Your task to perform on an android device: turn smart compose on in the gmail app Image 0: 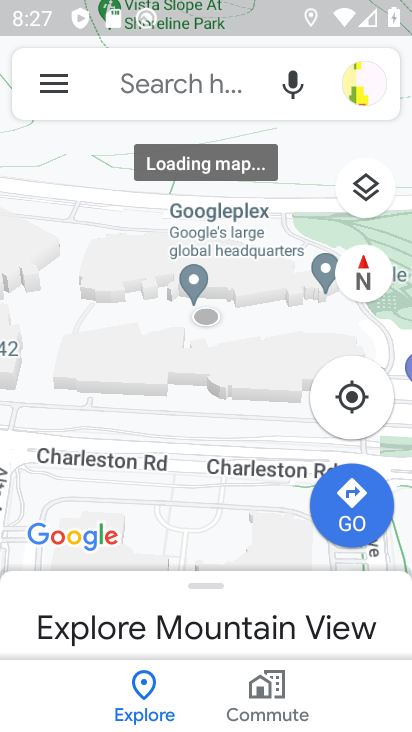
Step 0: press home button
Your task to perform on an android device: turn smart compose on in the gmail app Image 1: 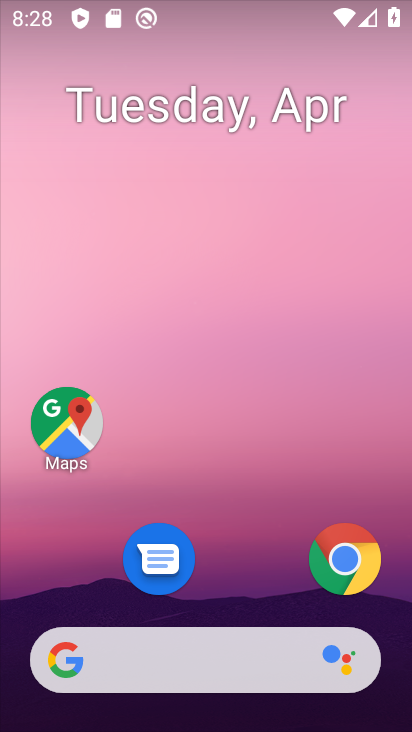
Step 1: drag from (271, 708) to (284, 320)
Your task to perform on an android device: turn smart compose on in the gmail app Image 2: 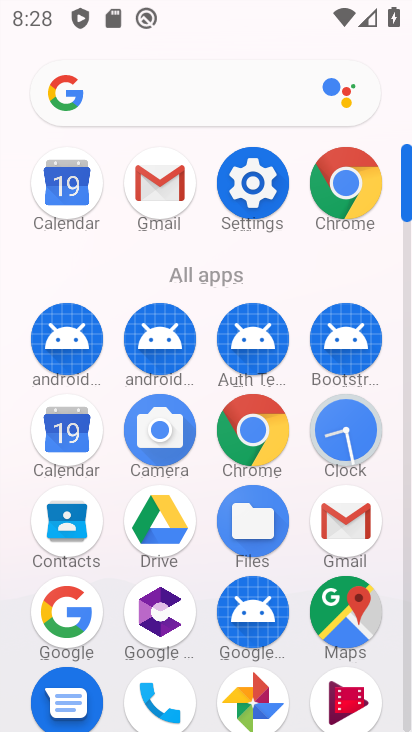
Step 2: click (356, 532)
Your task to perform on an android device: turn smart compose on in the gmail app Image 3: 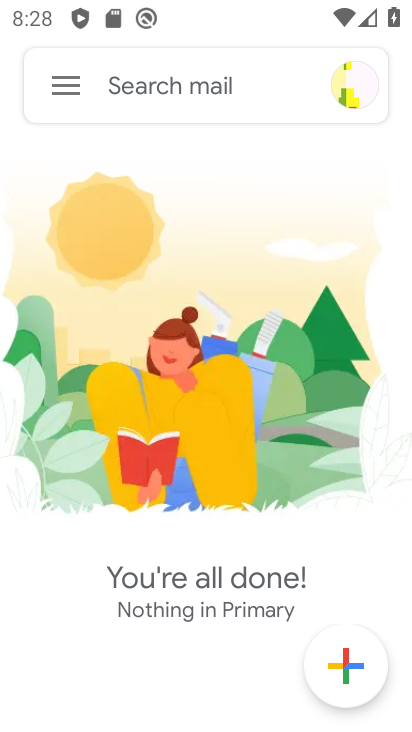
Step 3: click (60, 91)
Your task to perform on an android device: turn smart compose on in the gmail app Image 4: 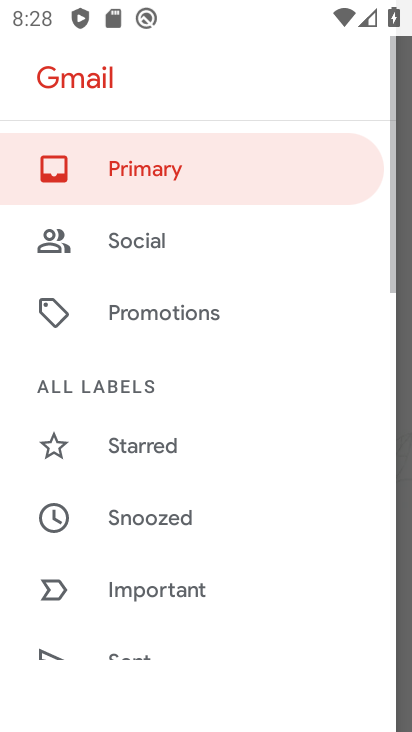
Step 4: drag from (170, 575) to (230, 131)
Your task to perform on an android device: turn smart compose on in the gmail app Image 5: 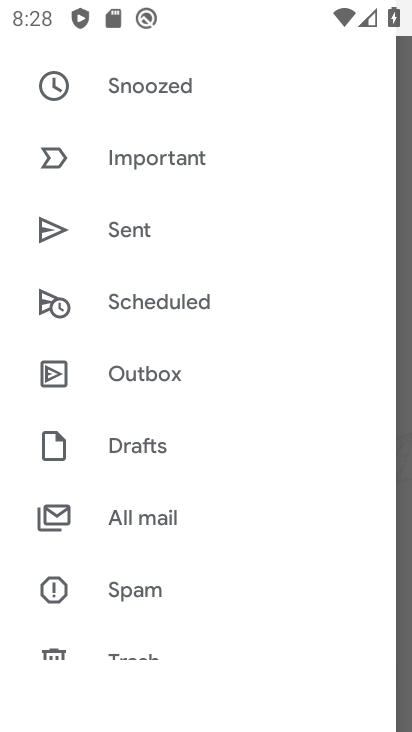
Step 5: drag from (181, 512) to (222, 119)
Your task to perform on an android device: turn smart compose on in the gmail app Image 6: 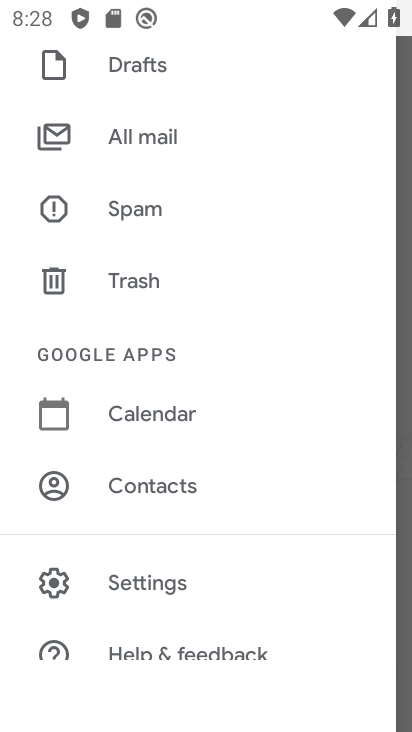
Step 6: click (148, 590)
Your task to perform on an android device: turn smart compose on in the gmail app Image 7: 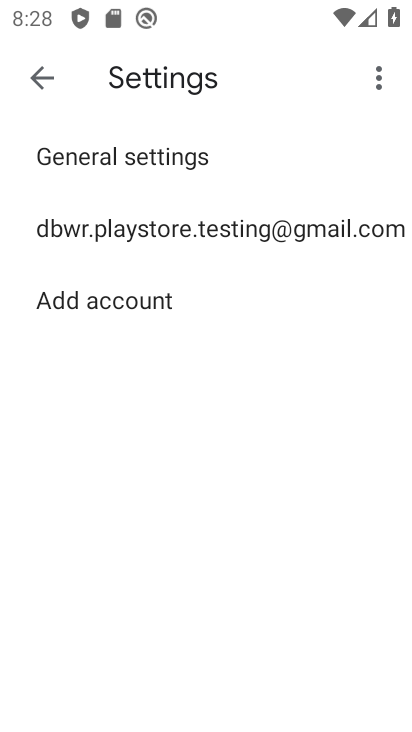
Step 7: click (207, 220)
Your task to perform on an android device: turn smart compose on in the gmail app Image 8: 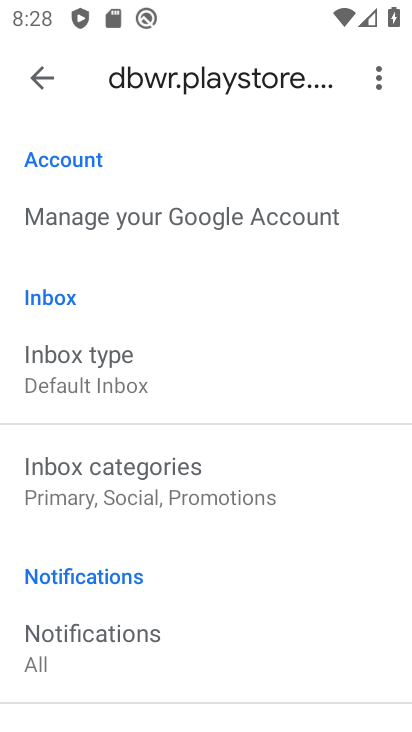
Step 8: drag from (230, 658) to (263, 92)
Your task to perform on an android device: turn smart compose on in the gmail app Image 9: 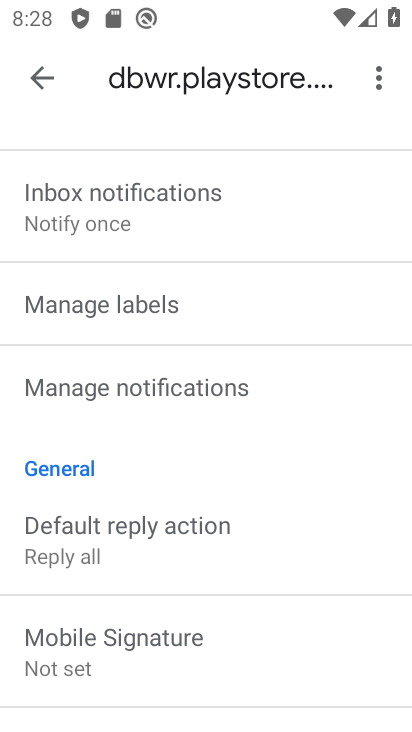
Step 9: drag from (221, 609) to (235, 307)
Your task to perform on an android device: turn smart compose on in the gmail app Image 10: 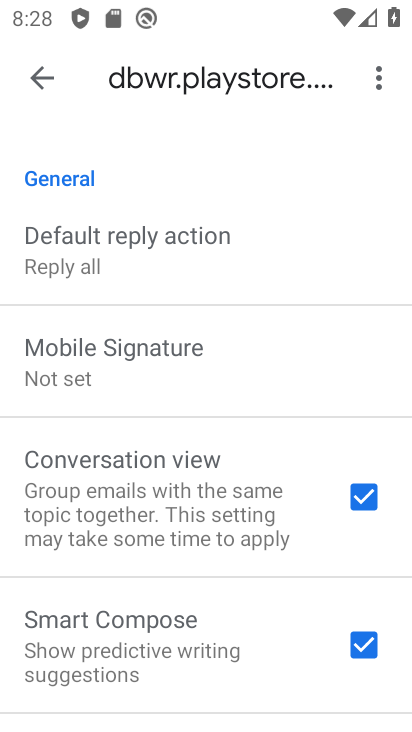
Step 10: drag from (260, 556) to (264, 482)
Your task to perform on an android device: turn smart compose on in the gmail app Image 11: 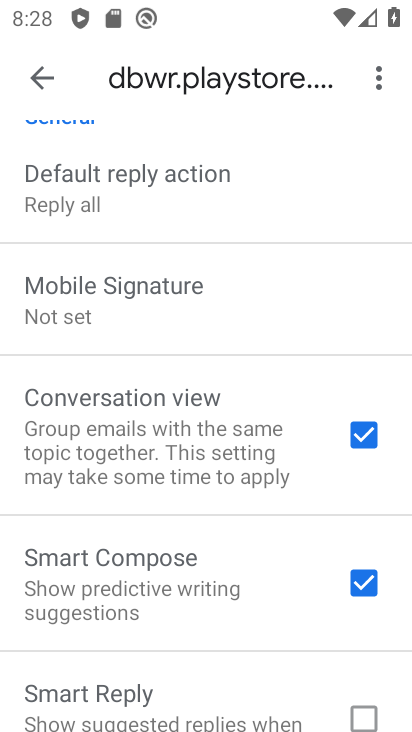
Step 11: click (363, 581)
Your task to perform on an android device: turn smart compose on in the gmail app Image 12: 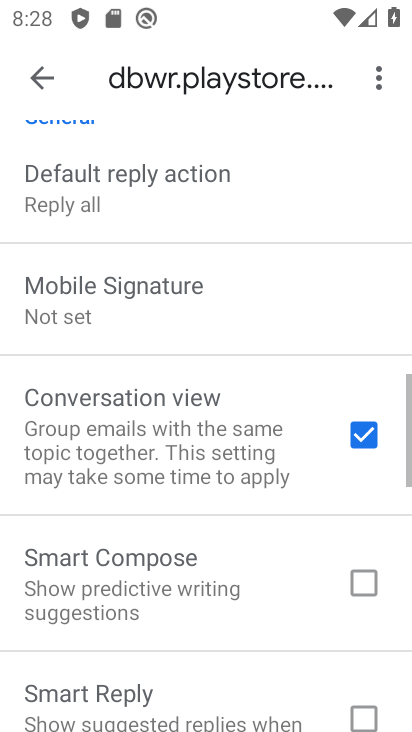
Step 12: click (363, 581)
Your task to perform on an android device: turn smart compose on in the gmail app Image 13: 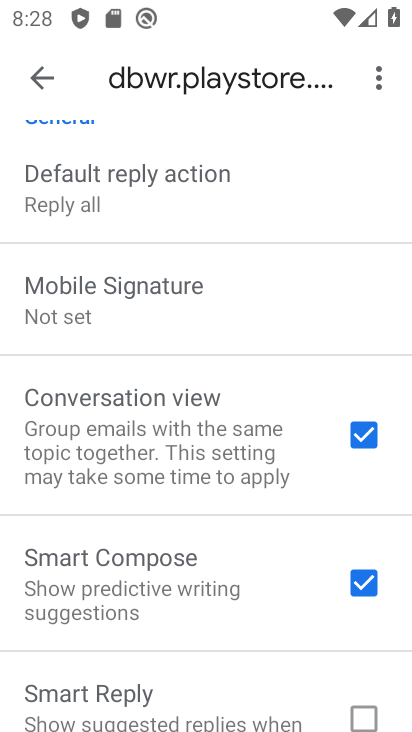
Step 13: task complete